Your task to perform on an android device: turn on the 24-hour format for clock Image 0: 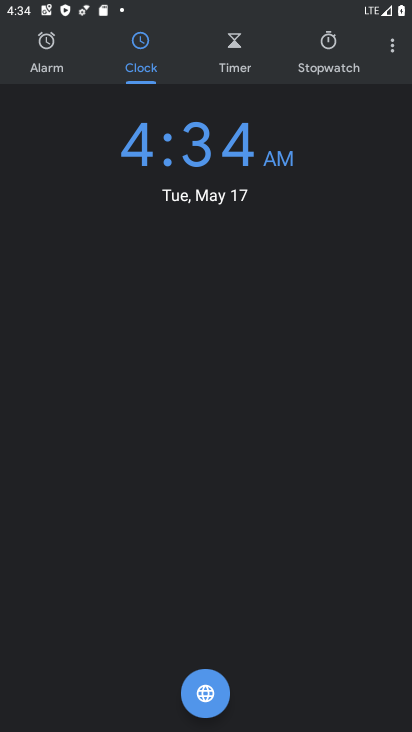
Step 0: click (394, 51)
Your task to perform on an android device: turn on the 24-hour format for clock Image 1: 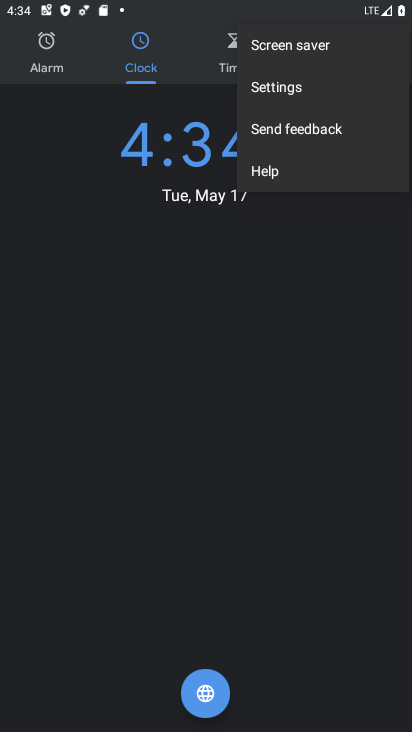
Step 1: click (270, 87)
Your task to perform on an android device: turn on the 24-hour format for clock Image 2: 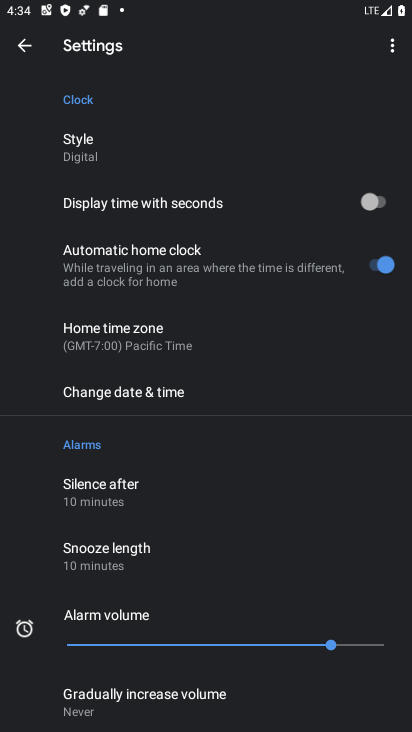
Step 2: drag from (221, 542) to (221, 199)
Your task to perform on an android device: turn on the 24-hour format for clock Image 3: 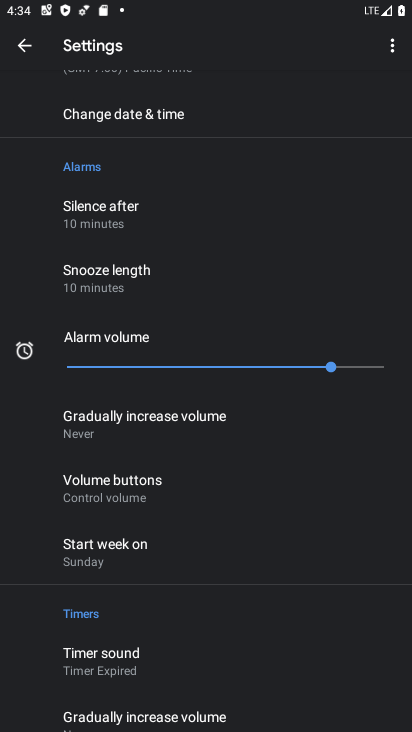
Step 3: click (175, 112)
Your task to perform on an android device: turn on the 24-hour format for clock Image 4: 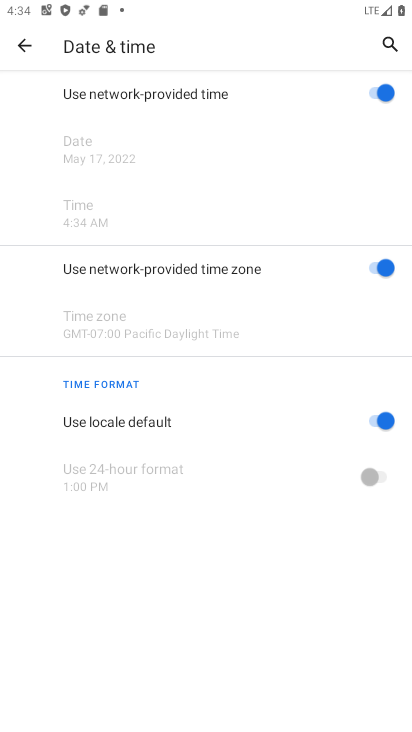
Step 4: click (380, 420)
Your task to perform on an android device: turn on the 24-hour format for clock Image 5: 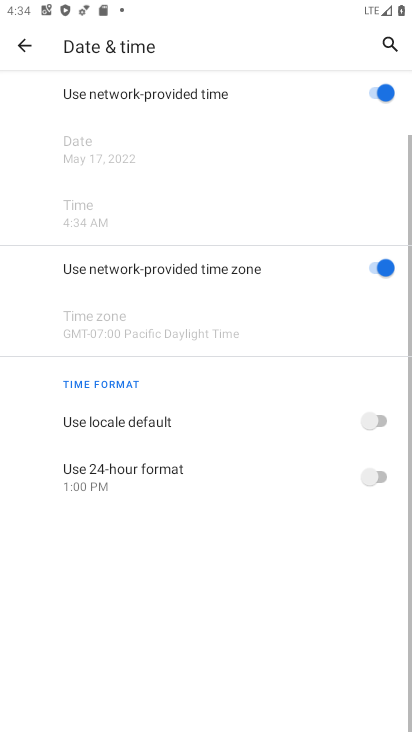
Step 5: click (381, 469)
Your task to perform on an android device: turn on the 24-hour format for clock Image 6: 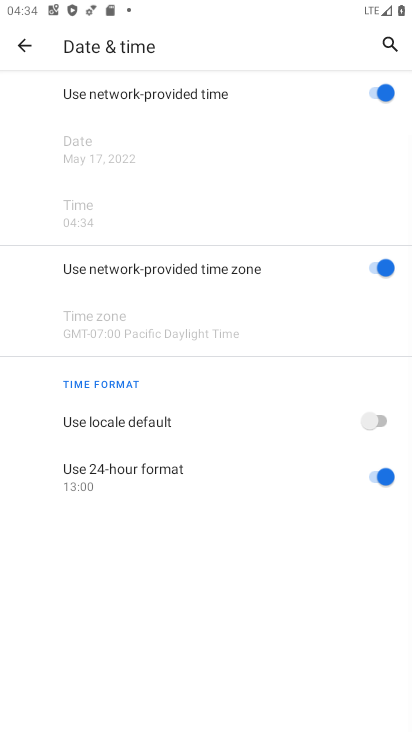
Step 6: task complete